Your task to perform on an android device: What is the recent news? Image 0: 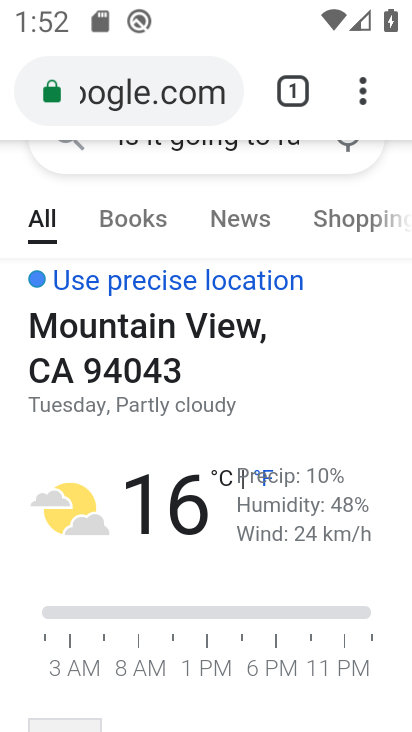
Step 0: drag from (332, 277) to (334, 516)
Your task to perform on an android device: What is the recent news? Image 1: 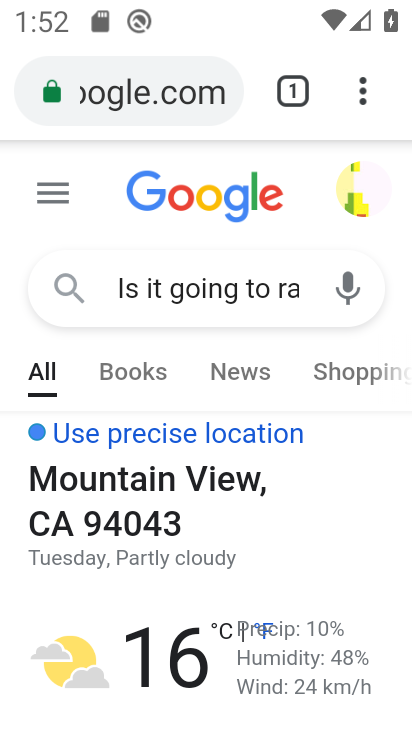
Step 1: click (288, 285)
Your task to perform on an android device: What is the recent news? Image 2: 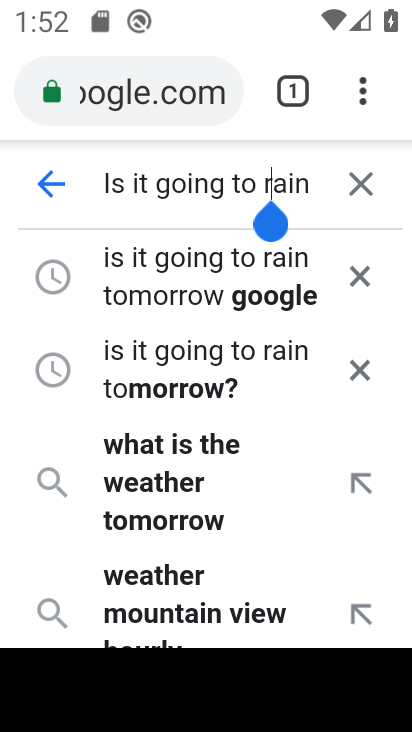
Step 2: click (369, 177)
Your task to perform on an android device: What is the recent news? Image 3: 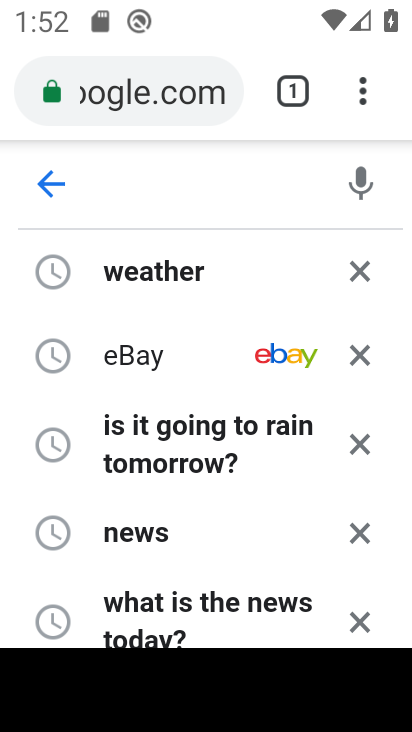
Step 3: type "recent news"
Your task to perform on an android device: What is the recent news? Image 4: 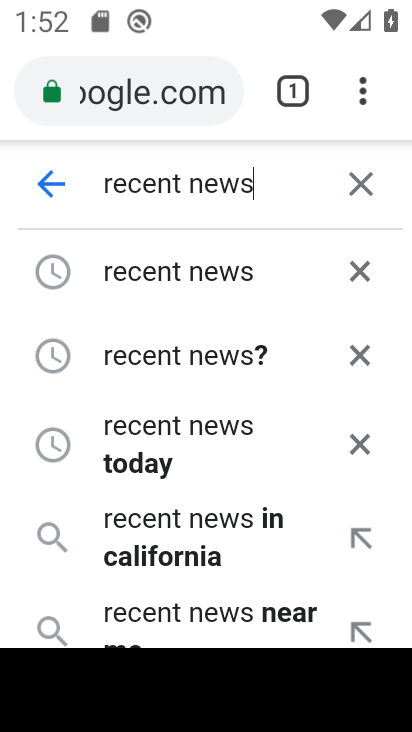
Step 4: click (223, 348)
Your task to perform on an android device: What is the recent news? Image 5: 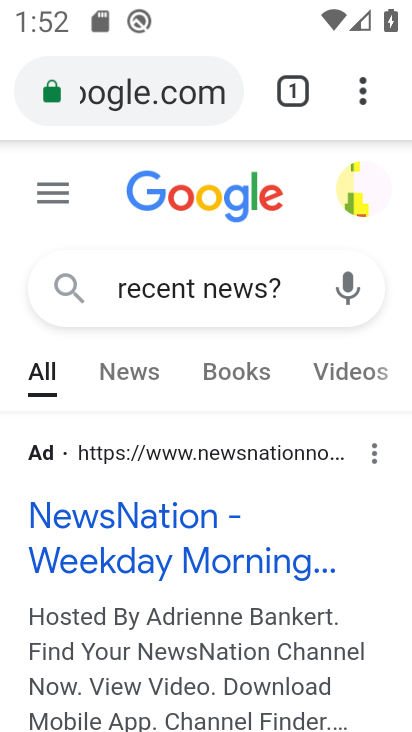
Step 5: drag from (202, 590) to (263, 365)
Your task to perform on an android device: What is the recent news? Image 6: 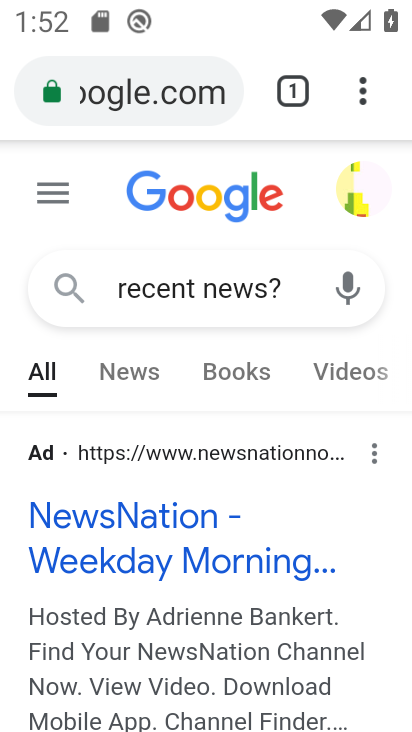
Step 6: drag from (183, 613) to (215, 275)
Your task to perform on an android device: What is the recent news? Image 7: 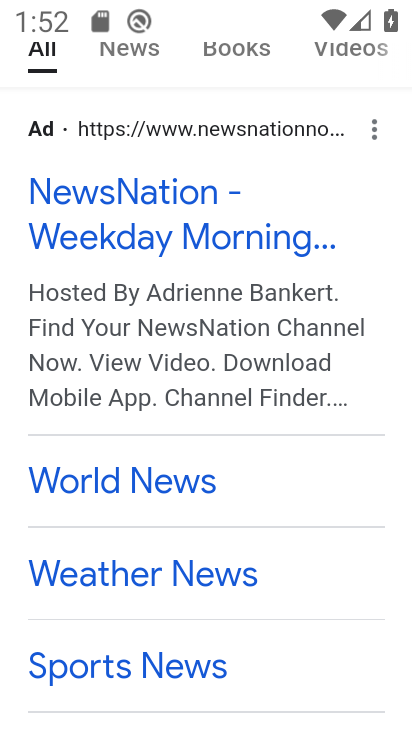
Step 7: drag from (178, 606) to (215, 249)
Your task to perform on an android device: What is the recent news? Image 8: 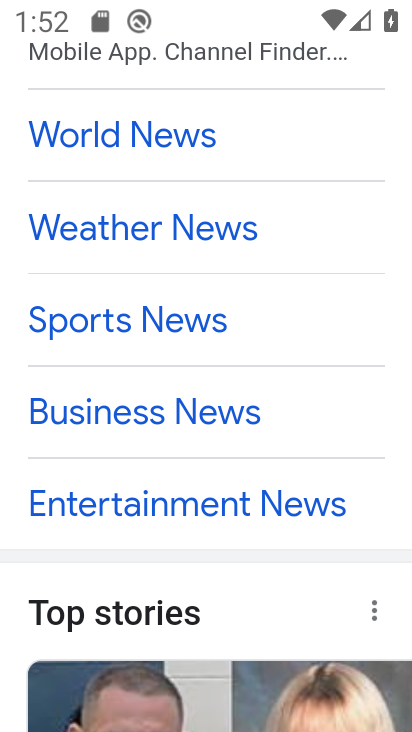
Step 8: drag from (189, 559) to (218, 166)
Your task to perform on an android device: What is the recent news? Image 9: 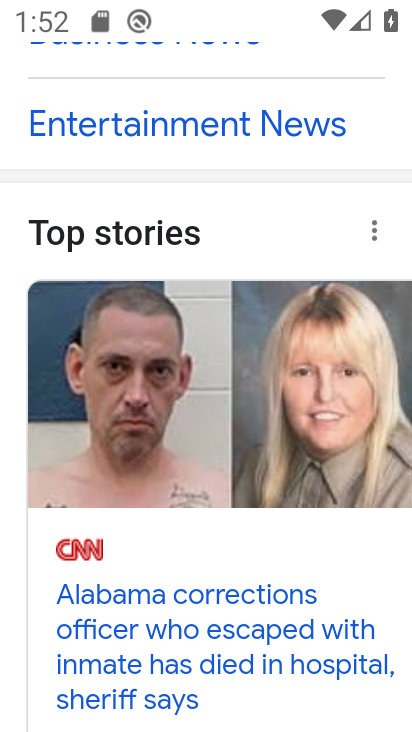
Step 9: click (227, 440)
Your task to perform on an android device: What is the recent news? Image 10: 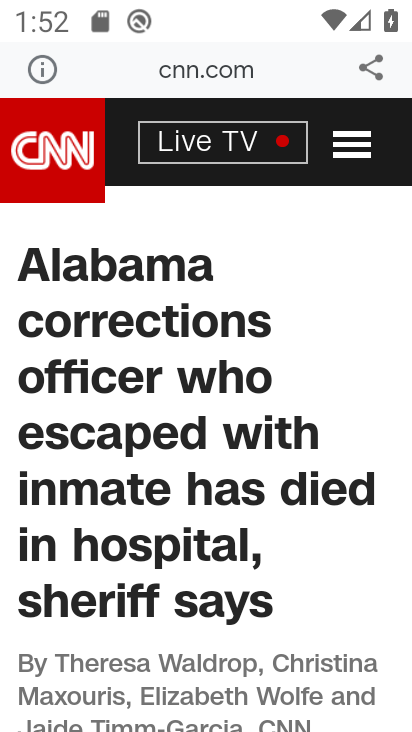
Step 10: task complete